Your task to perform on an android device: Show the shopping cart on ebay. Add energizer triple a to the cart on ebay Image 0: 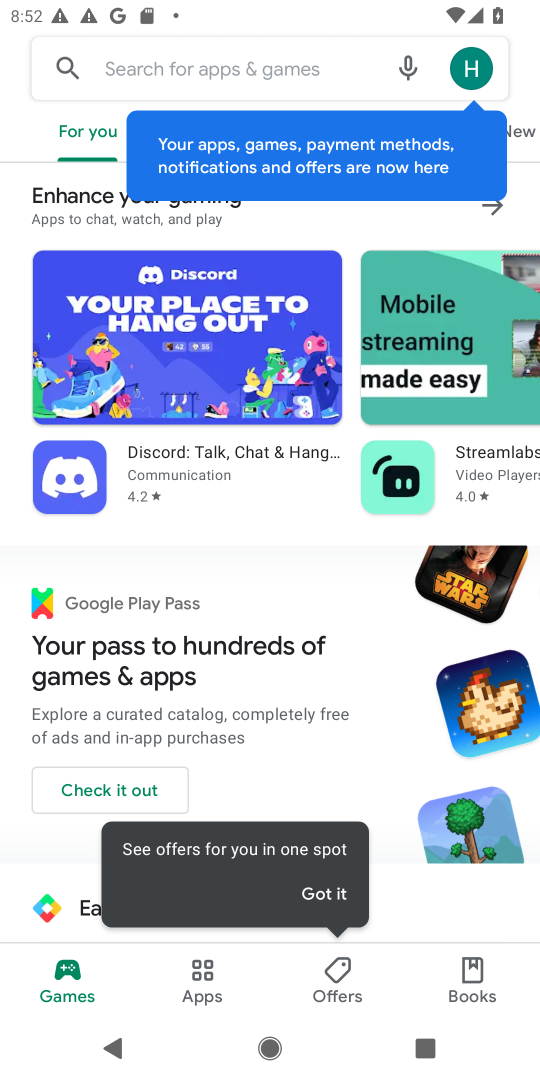
Step 0: press home button
Your task to perform on an android device: Show the shopping cart on ebay. Add energizer triple a to the cart on ebay Image 1: 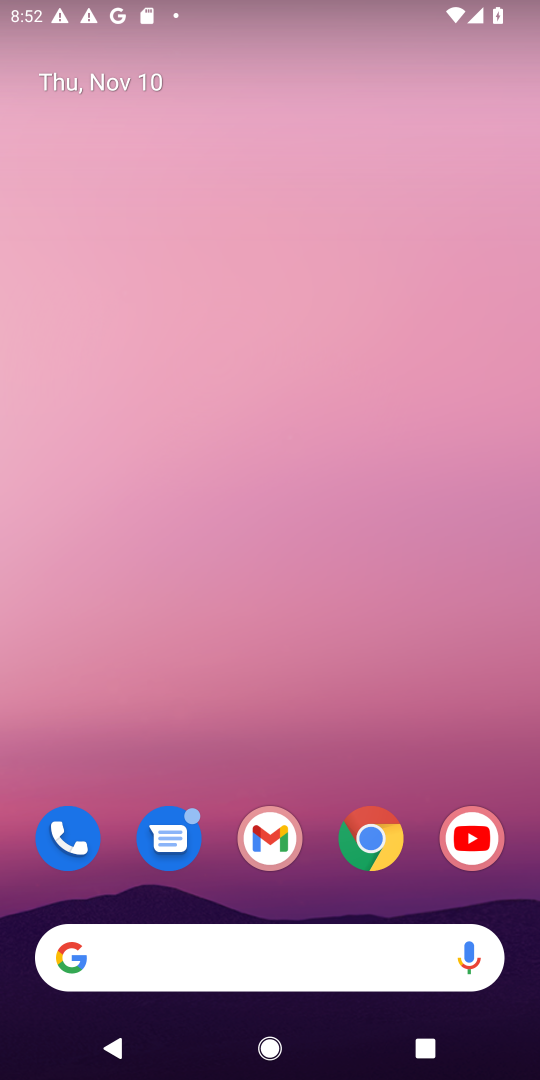
Step 1: drag from (307, 894) to (394, 159)
Your task to perform on an android device: Show the shopping cart on ebay. Add energizer triple a to the cart on ebay Image 2: 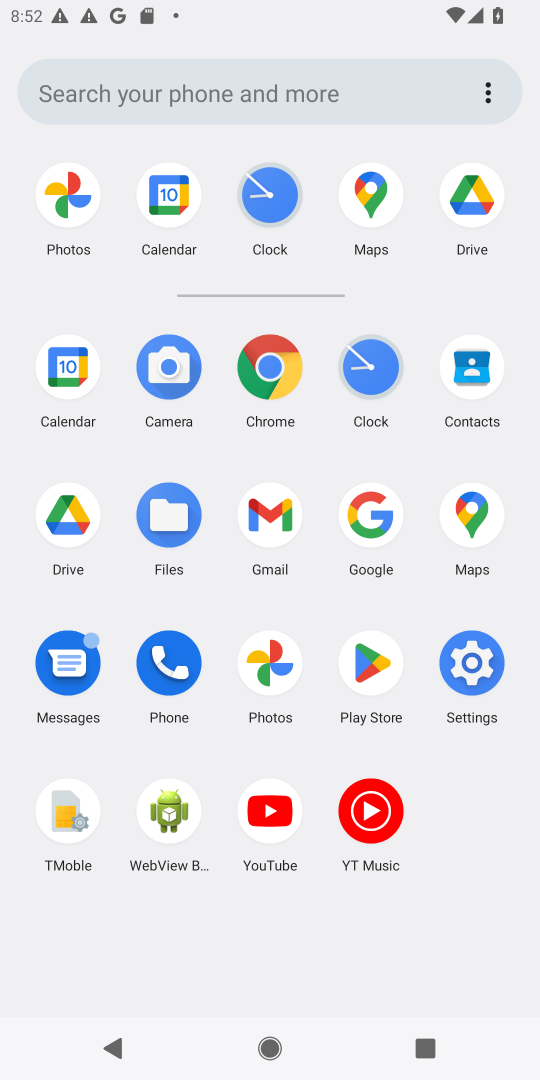
Step 2: click (263, 379)
Your task to perform on an android device: Show the shopping cart on ebay. Add energizer triple a to the cart on ebay Image 3: 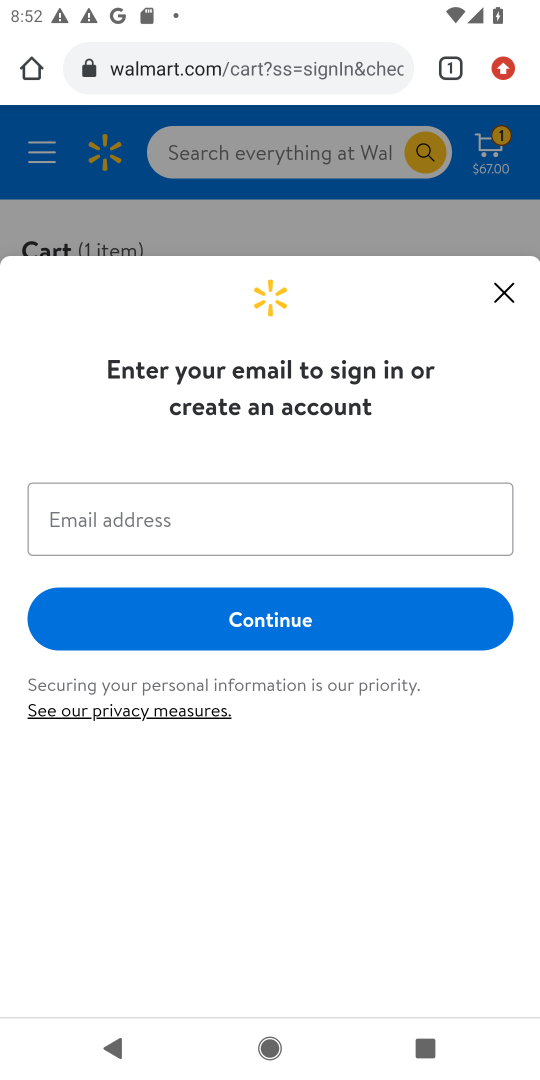
Step 3: click (297, 68)
Your task to perform on an android device: Show the shopping cart on ebay. Add energizer triple a to the cart on ebay Image 4: 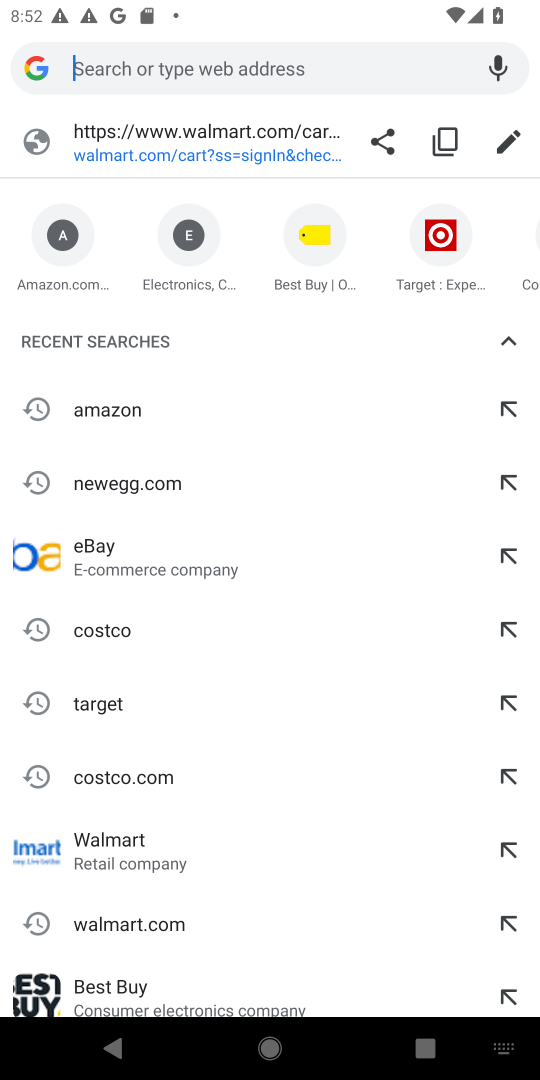
Step 4: type "ebay.com"
Your task to perform on an android device: Show the shopping cart on ebay. Add energizer triple a to the cart on ebay Image 5: 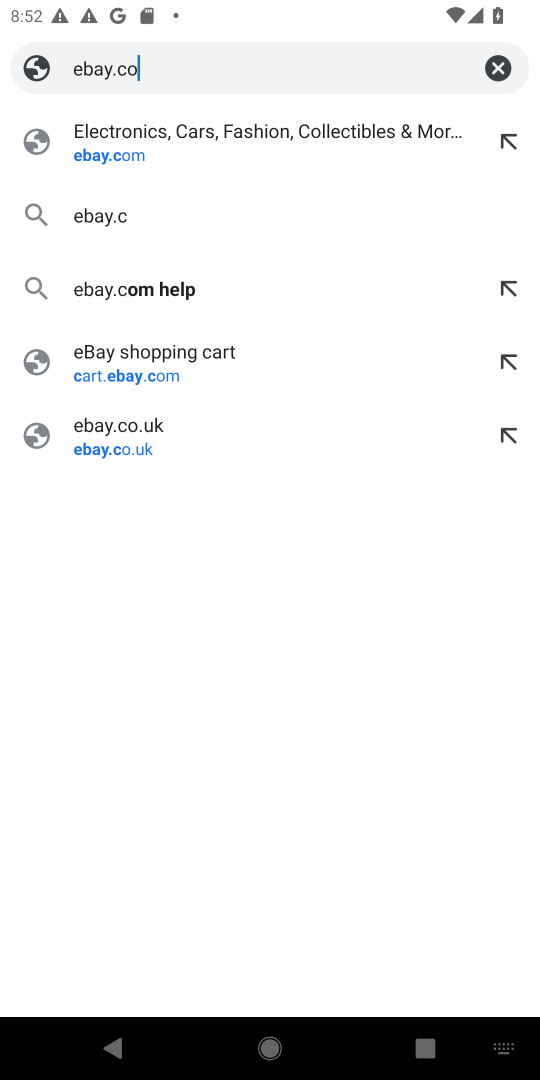
Step 5: press enter
Your task to perform on an android device: Show the shopping cart on ebay. Add energizer triple a to the cart on ebay Image 6: 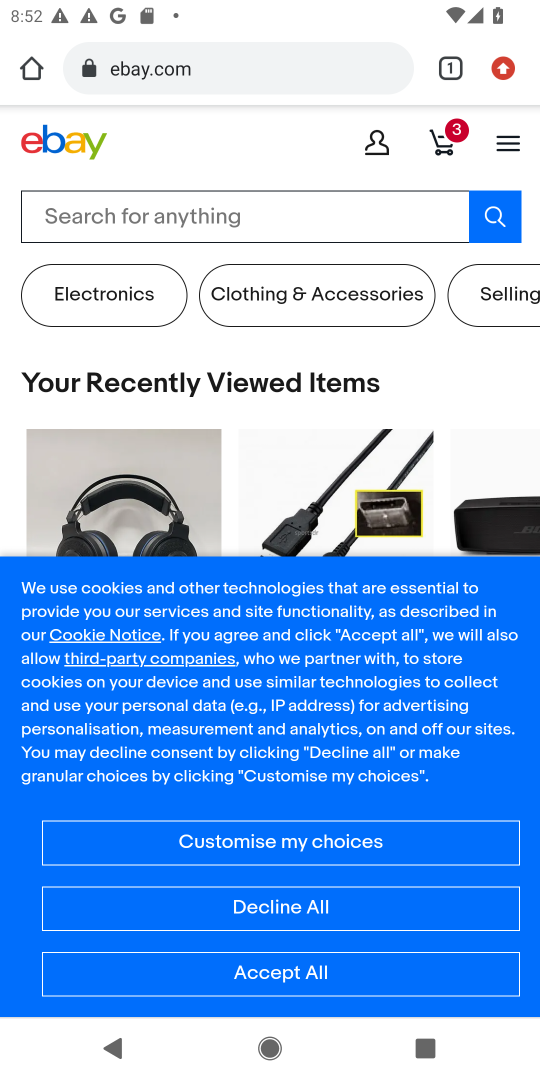
Step 6: click (432, 144)
Your task to perform on an android device: Show the shopping cart on ebay. Add energizer triple a to the cart on ebay Image 7: 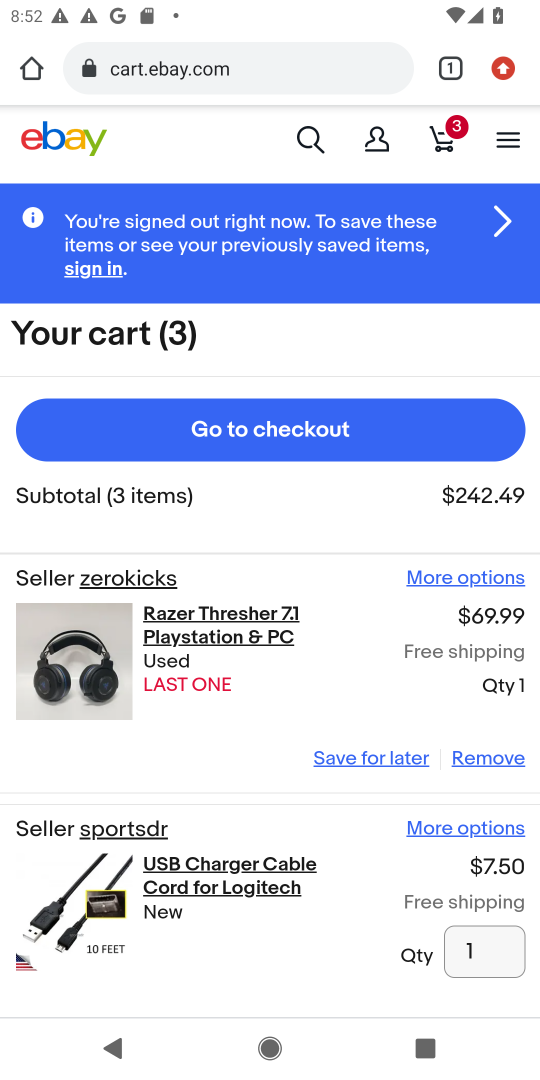
Step 7: click (307, 120)
Your task to perform on an android device: Show the shopping cart on ebay. Add energizer triple a to the cart on ebay Image 8: 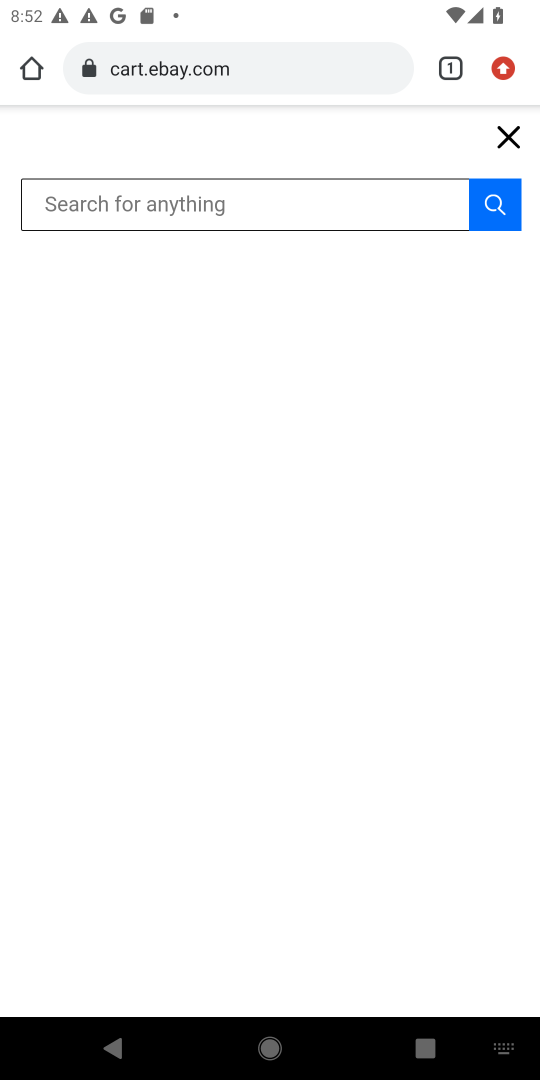
Step 8: type "energizer triple a"
Your task to perform on an android device: Show the shopping cart on ebay. Add energizer triple a to the cart on ebay Image 9: 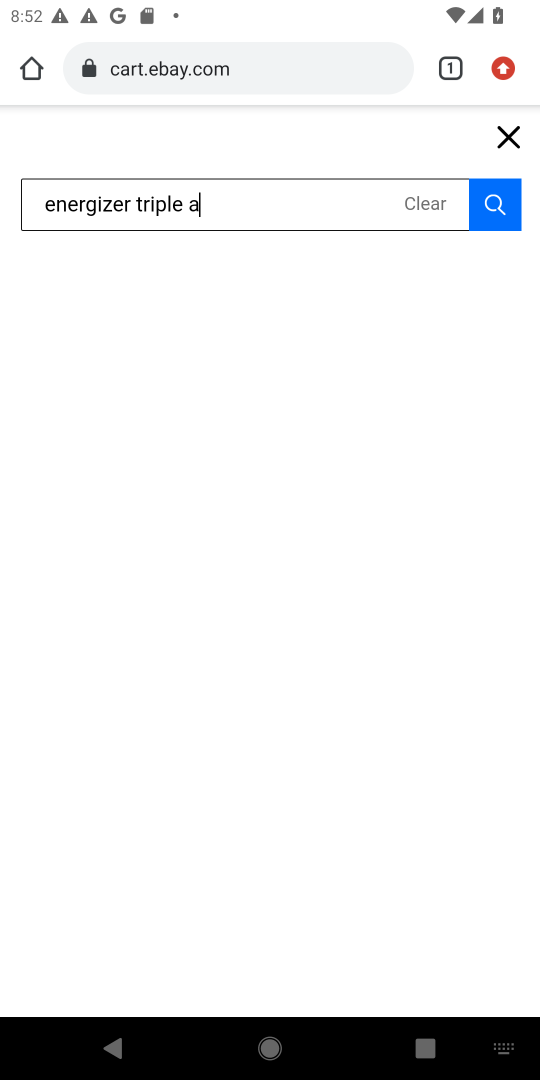
Step 9: press enter
Your task to perform on an android device: Show the shopping cart on ebay. Add energizer triple a to the cart on ebay Image 10: 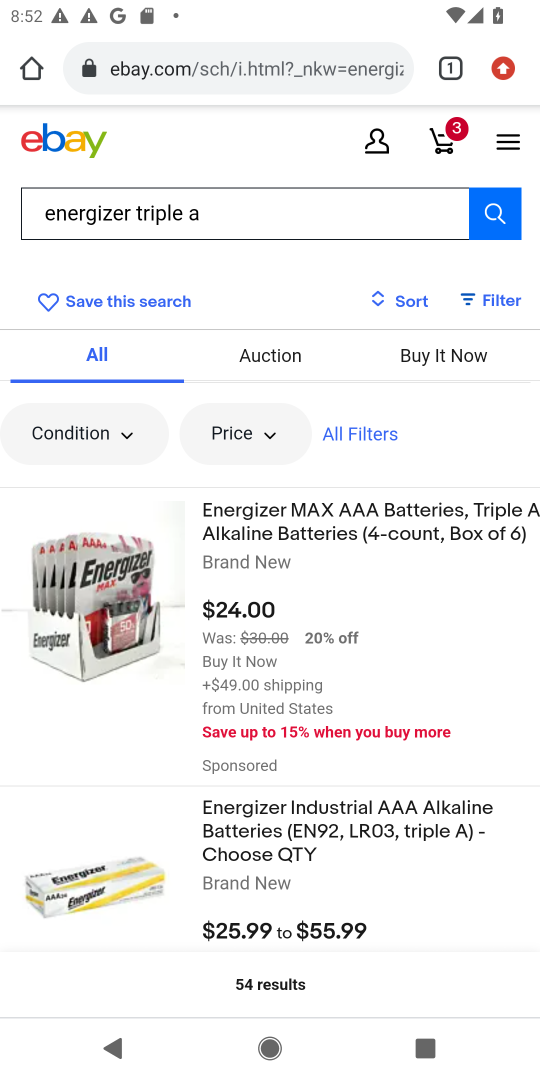
Step 10: click (397, 519)
Your task to perform on an android device: Show the shopping cart on ebay. Add energizer triple a to the cart on ebay Image 11: 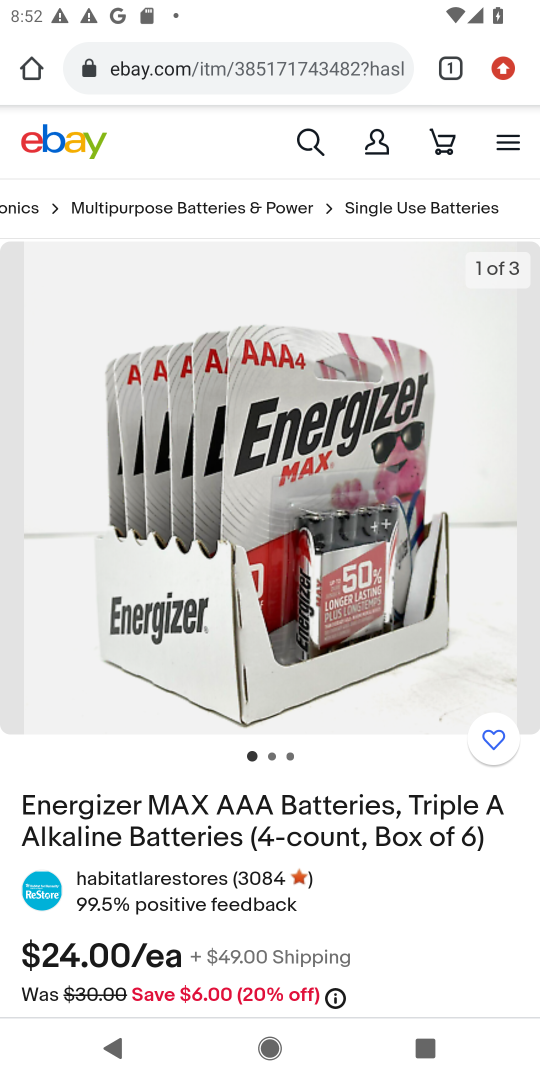
Step 11: drag from (336, 802) to (402, 137)
Your task to perform on an android device: Show the shopping cart on ebay. Add energizer triple a to the cart on ebay Image 12: 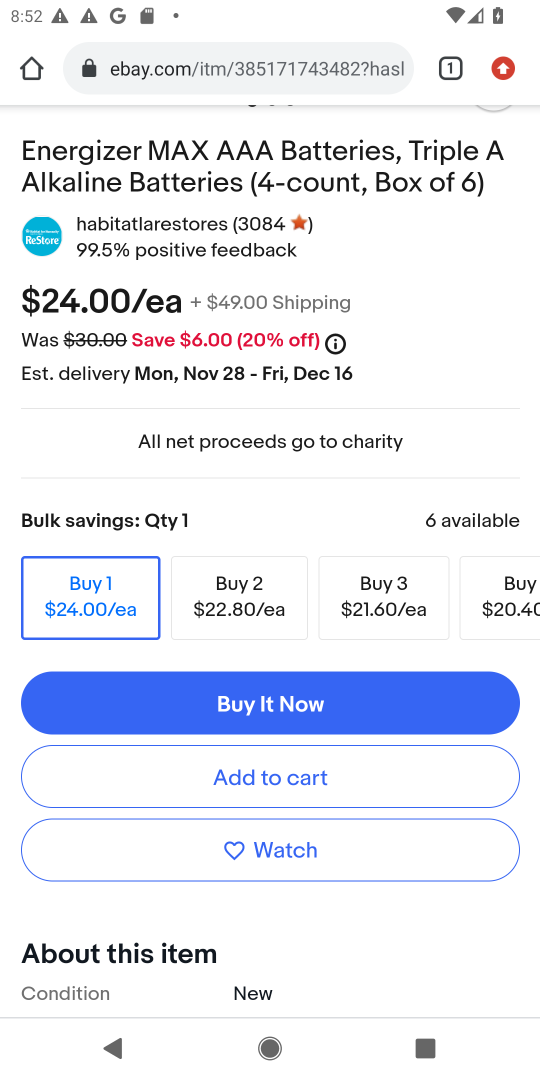
Step 12: click (349, 775)
Your task to perform on an android device: Show the shopping cart on ebay. Add energizer triple a to the cart on ebay Image 13: 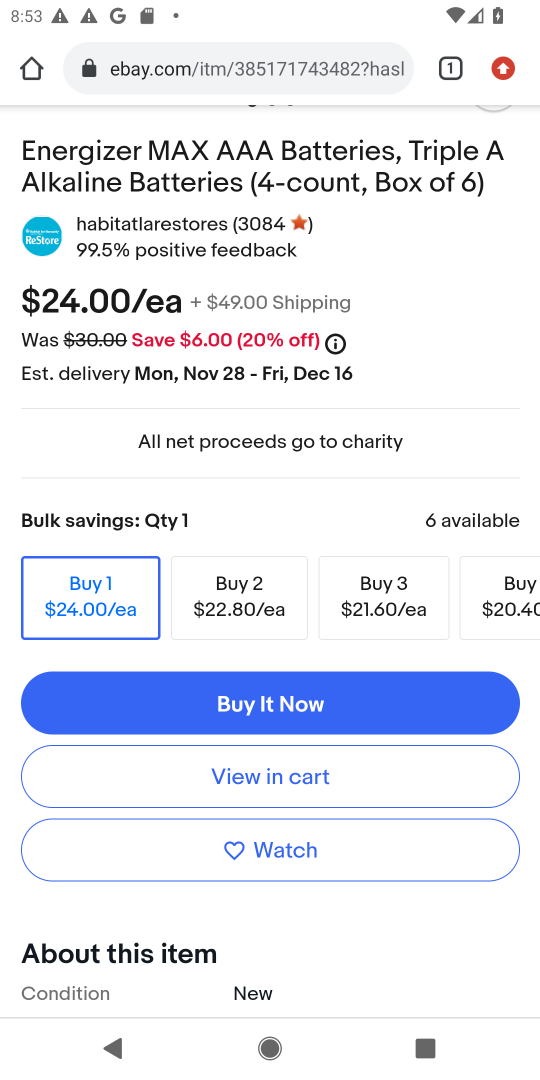
Step 13: task complete